Your task to perform on an android device: See recent photos Image 0: 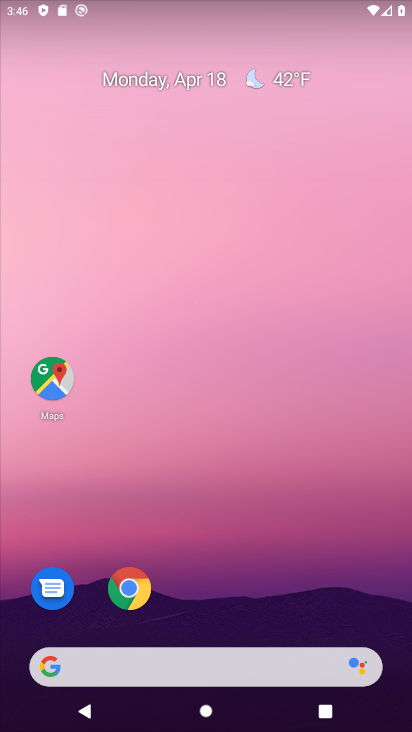
Step 0: drag from (205, 622) to (162, 51)
Your task to perform on an android device: See recent photos Image 1: 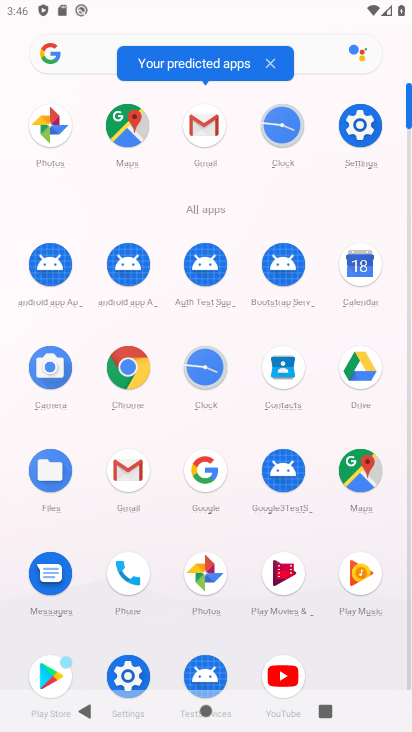
Step 1: click (211, 583)
Your task to perform on an android device: See recent photos Image 2: 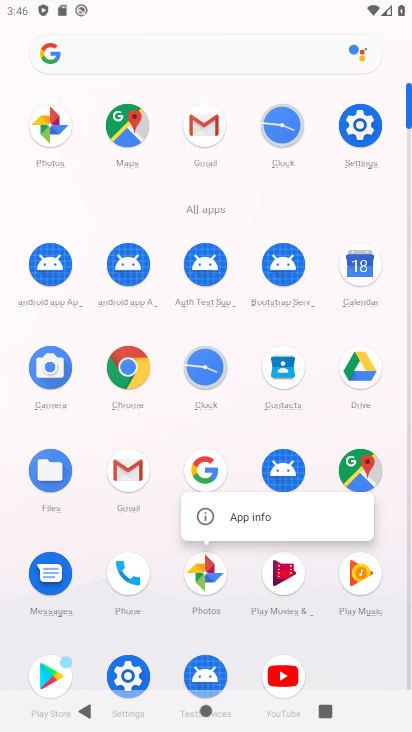
Step 2: click (206, 576)
Your task to perform on an android device: See recent photos Image 3: 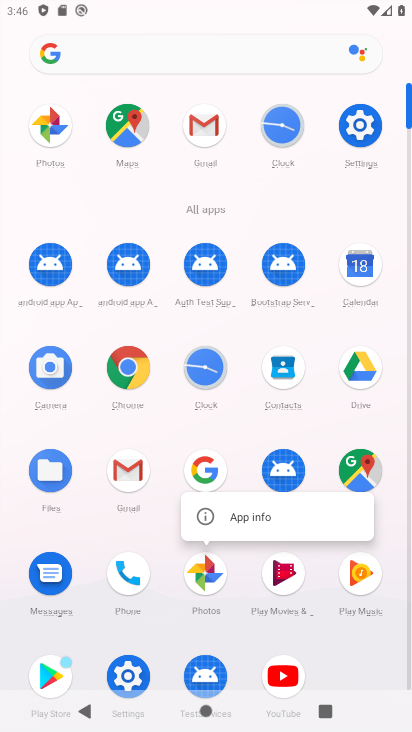
Step 3: click (206, 576)
Your task to perform on an android device: See recent photos Image 4: 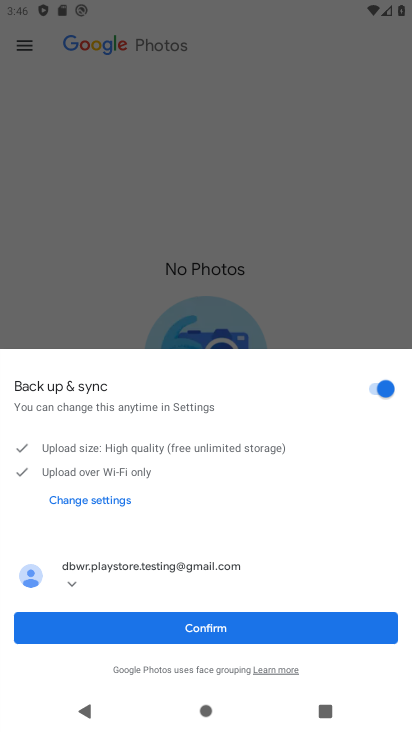
Step 4: click (181, 632)
Your task to perform on an android device: See recent photos Image 5: 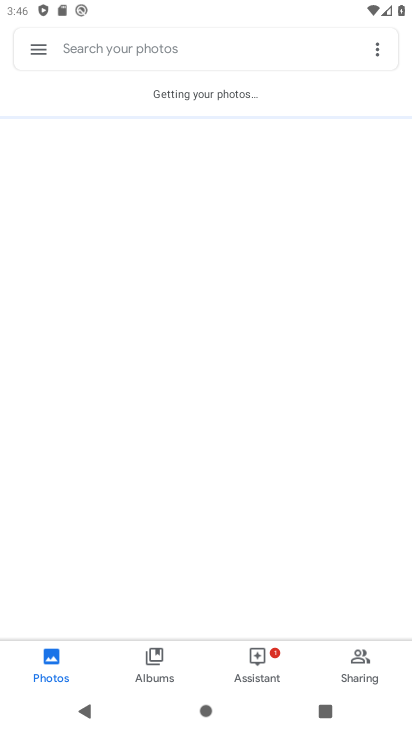
Step 5: drag from (171, 228) to (192, 493)
Your task to perform on an android device: See recent photos Image 6: 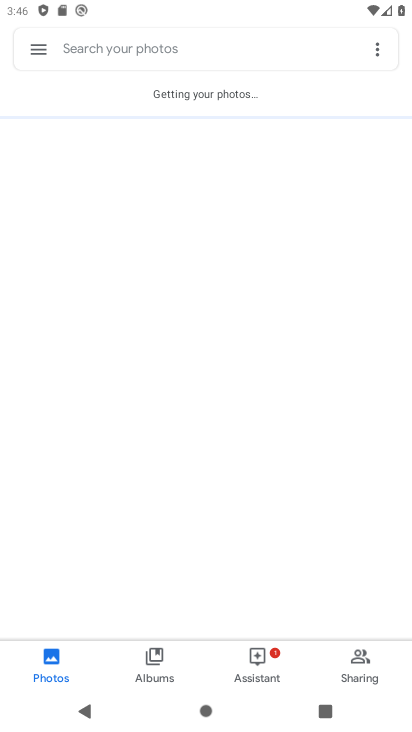
Step 6: click (134, 653)
Your task to perform on an android device: See recent photos Image 7: 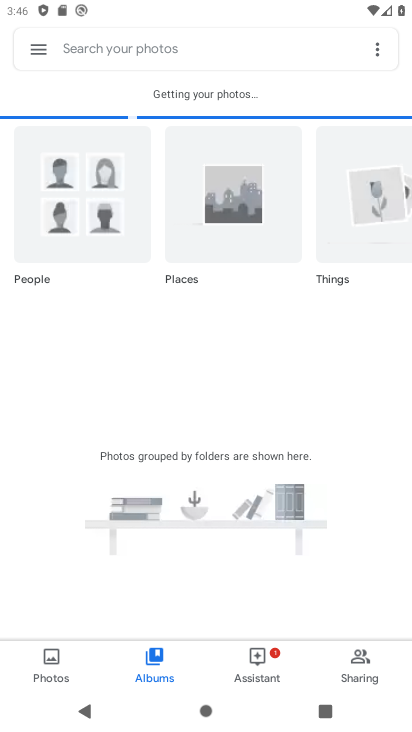
Step 7: click (41, 653)
Your task to perform on an android device: See recent photos Image 8: 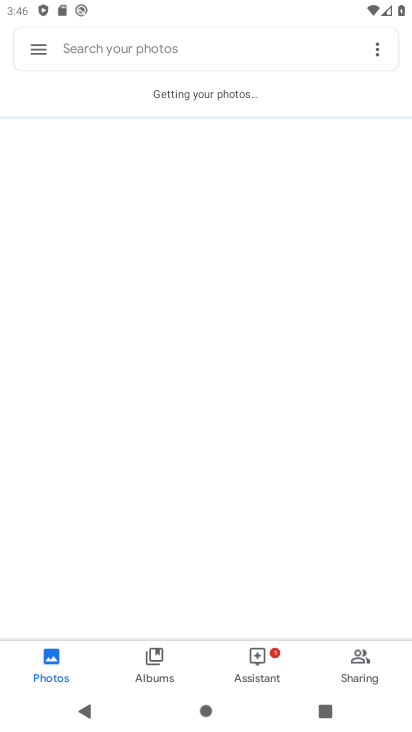
Step 8: click (142, 87)
Your task to perform on an android device: See recent photos Image 9: 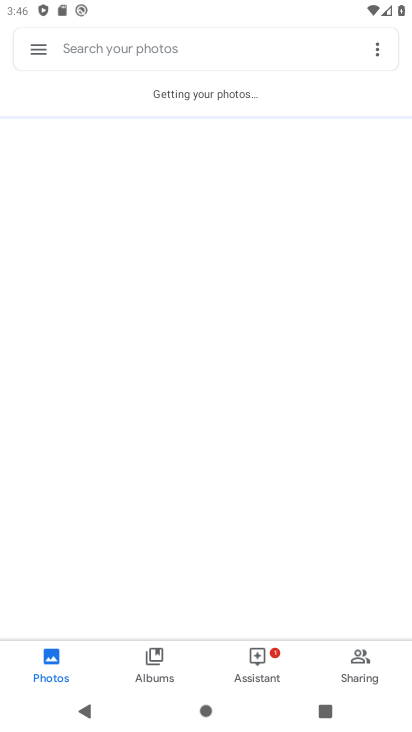
Step 9: task complete